Your task to perform on an android device: show emergency info Image 0: 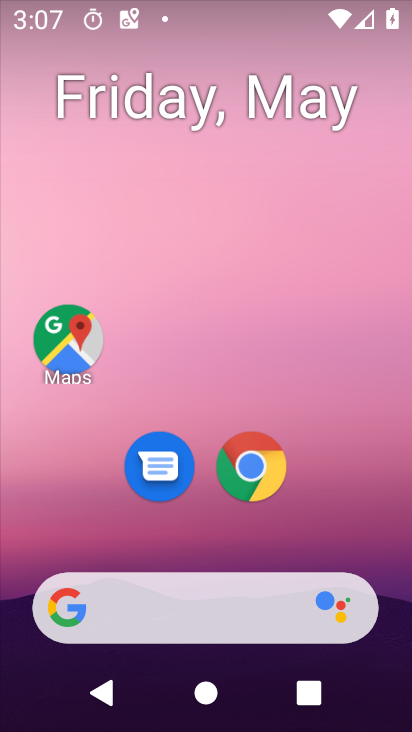
Step 0: drag from (220, 505) to (256, 34)
Your task to perform on an android device: show emergency info Image 1: 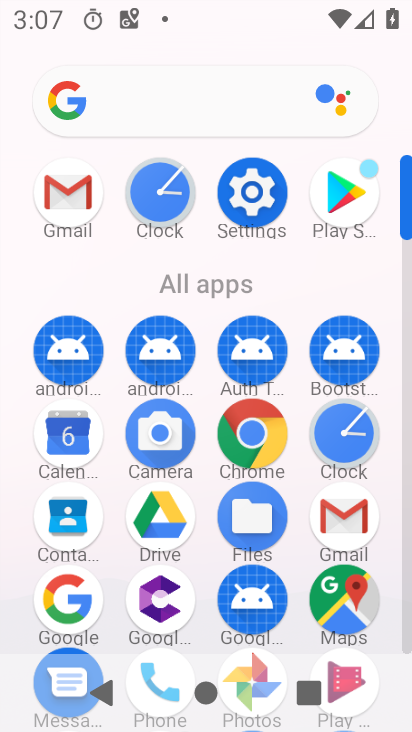
Step 1: drag from (200, 610) to (266, 135)
Your task to perform on an android device: show emergency info Image 2: 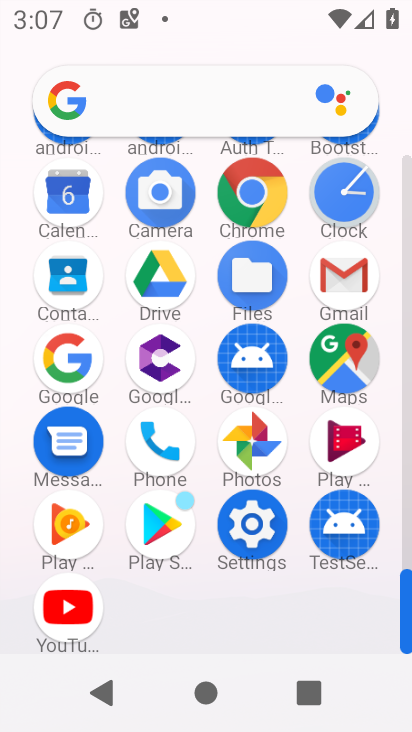
Step 2: click (258, 532)
Your task to perform on an android device: show emergency info Image 3: 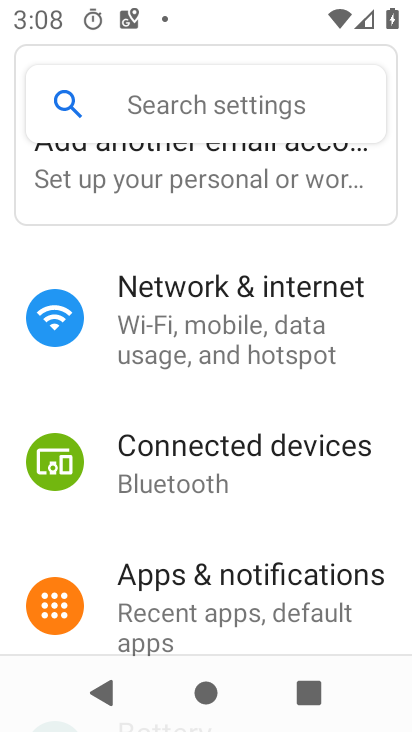
Step 3: drag from (244, 606) to (410, 41)
Your task to perform on an android device: show emergency info Image 4: 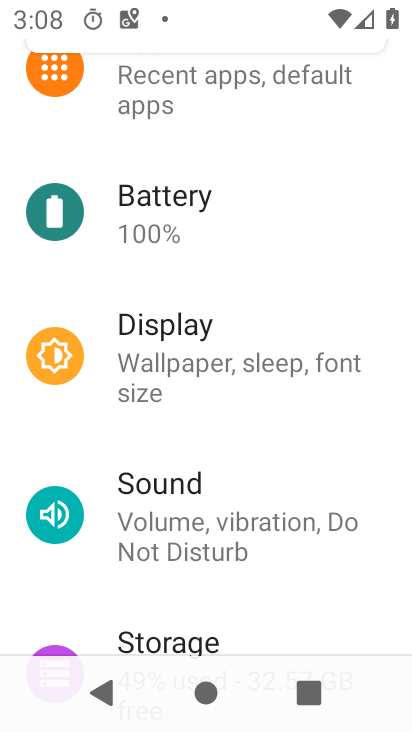
Step 4: drag from (241, 644) to (311, 41)
Your task to perform on an android device: show emergency info Image 5: 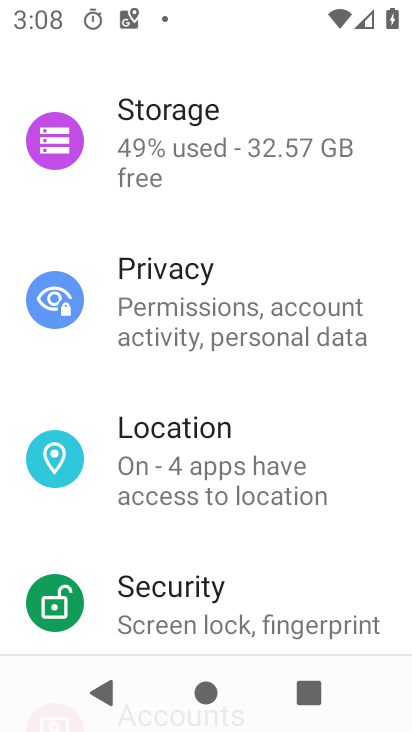
Step 5: drag from (230, 611) to (277, 157)
Your task to perform on an android device: show emergency info Image 6: 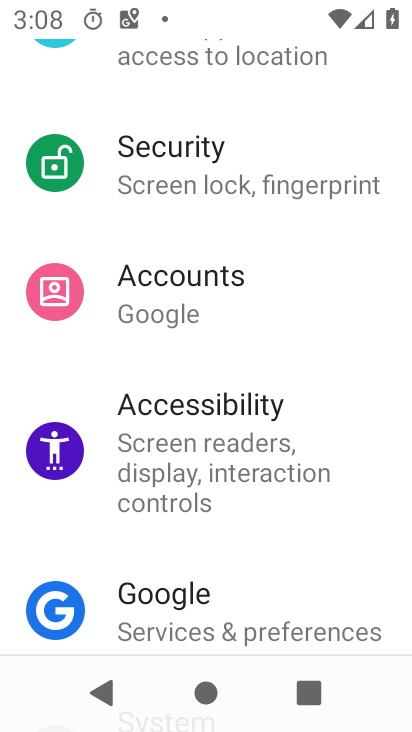
Step 6: drag from (241, 579) to (271, 99)
Your task to perform on an android device: show emergency info Image 7: 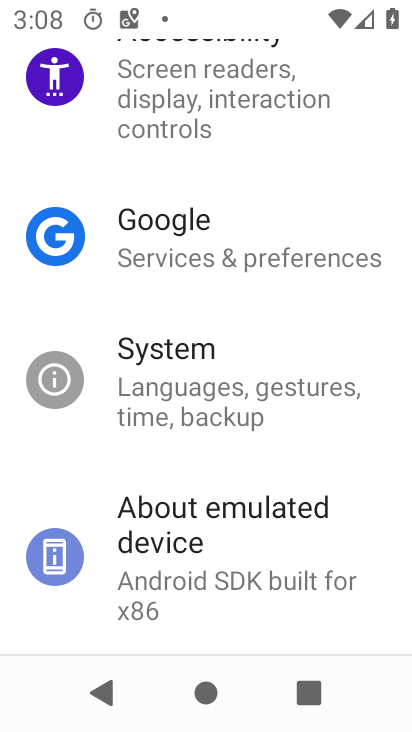
Step 7: click (223, 544)
Your task to perform on an android device: show emergency info Image 8: 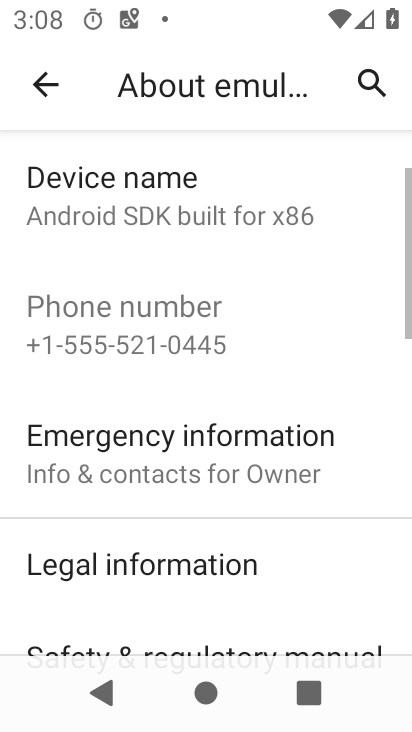
Step 8: click (205, 476)
Your task to perform on an android device: show emergency info Image 9: 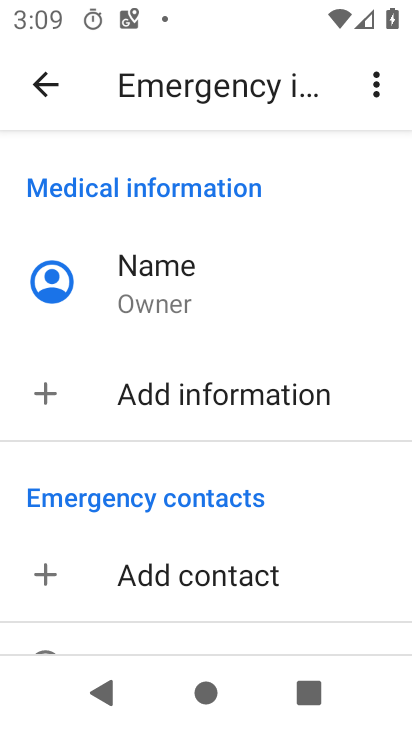
Step 9: task complete